Your task to perform on an android device: uninstall "Gmail" Image 0: 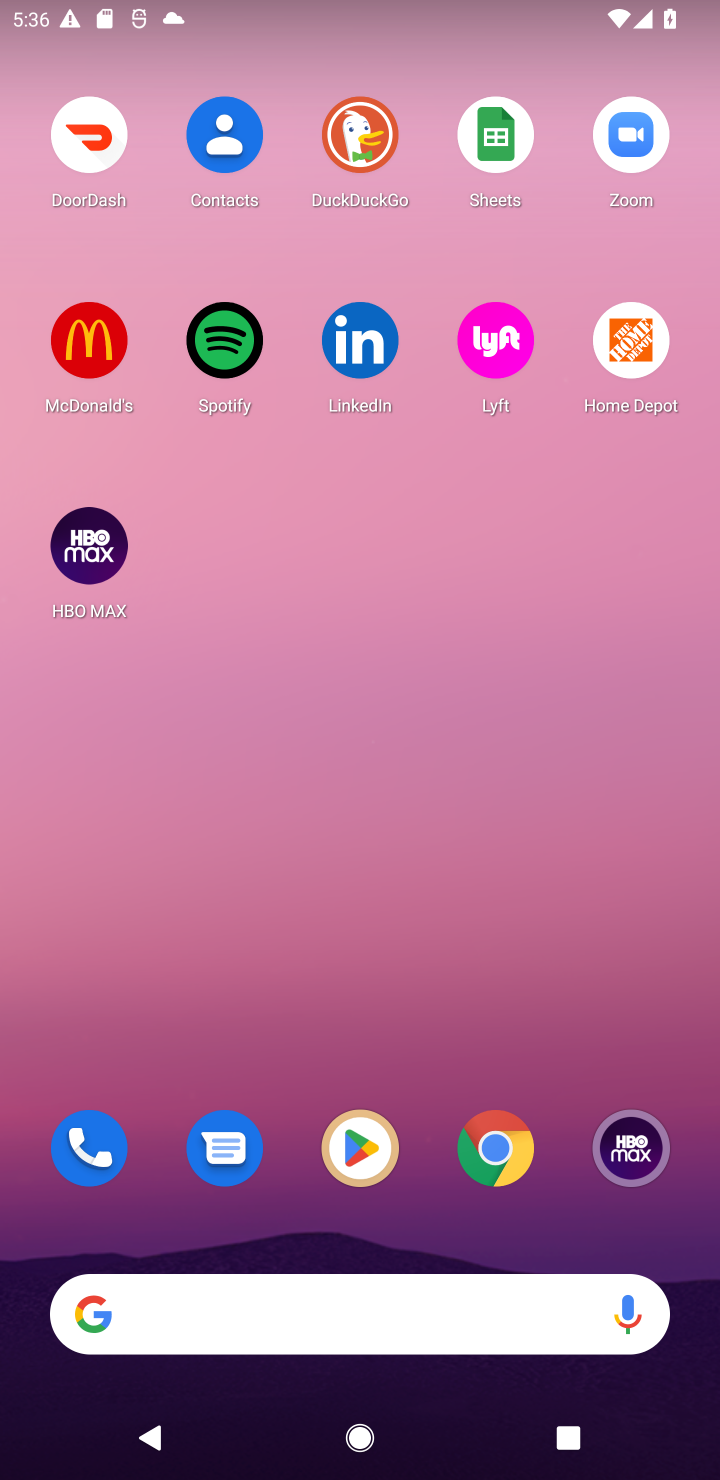
Step 0: drag from (485, 1101) to (466, 95)
Your task to perform on an android device: uninstall "Gmail" Image 1: 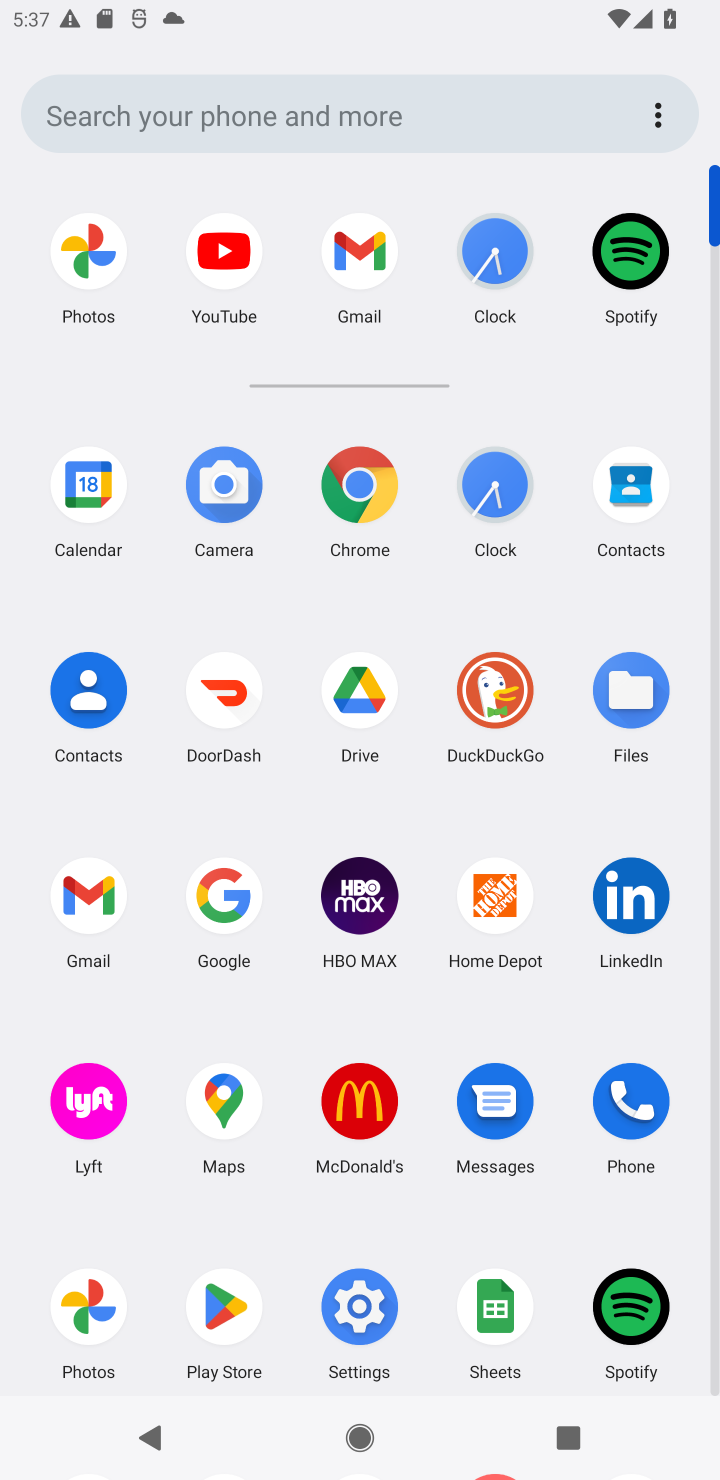
Step 1: click (232, 1282)
Your task to perform on an android device: uninstall "Gmail" Image 2: 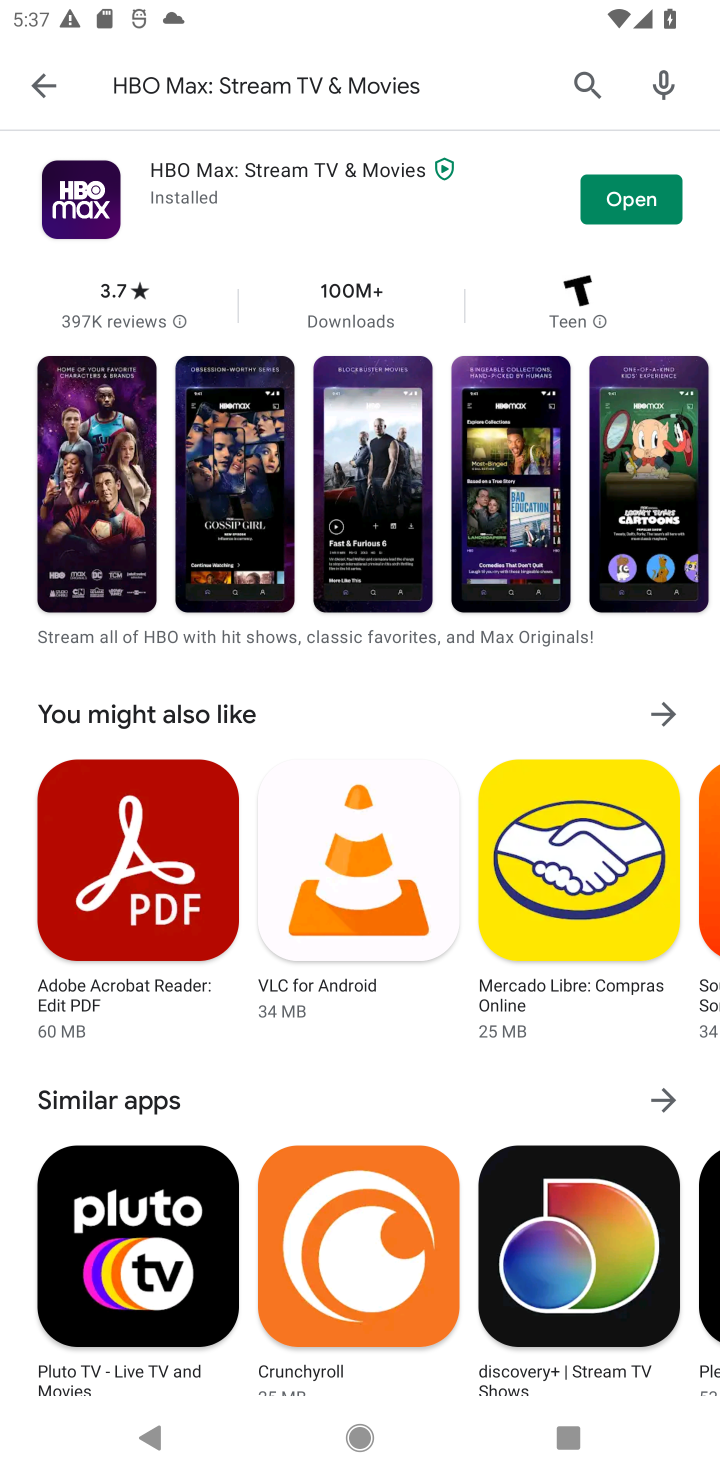
Step 2: press back button
Your task to perform on an android device: uninstall "Gmail" Image 3: 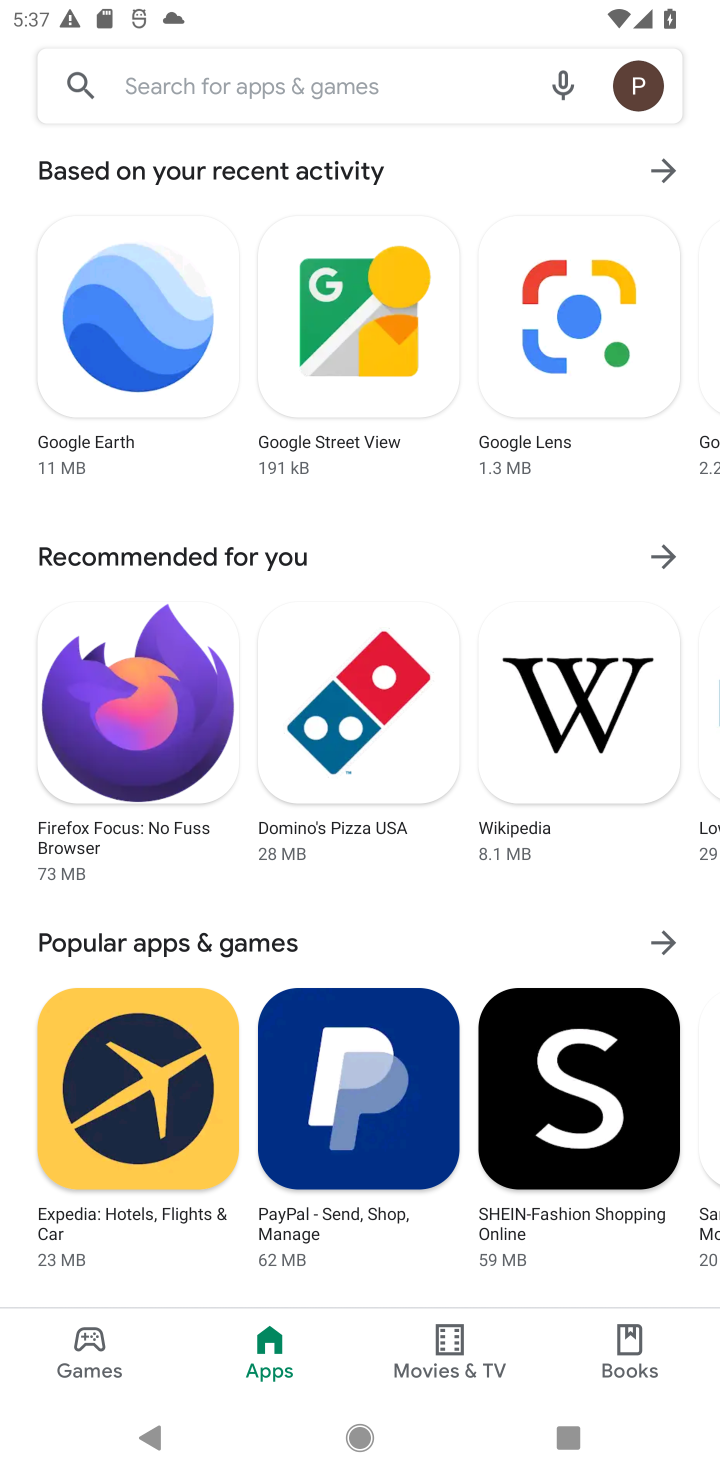
Step 3: click (236, 70)
Your task to perform on an android device: uninstall "Gmail" Image 4: 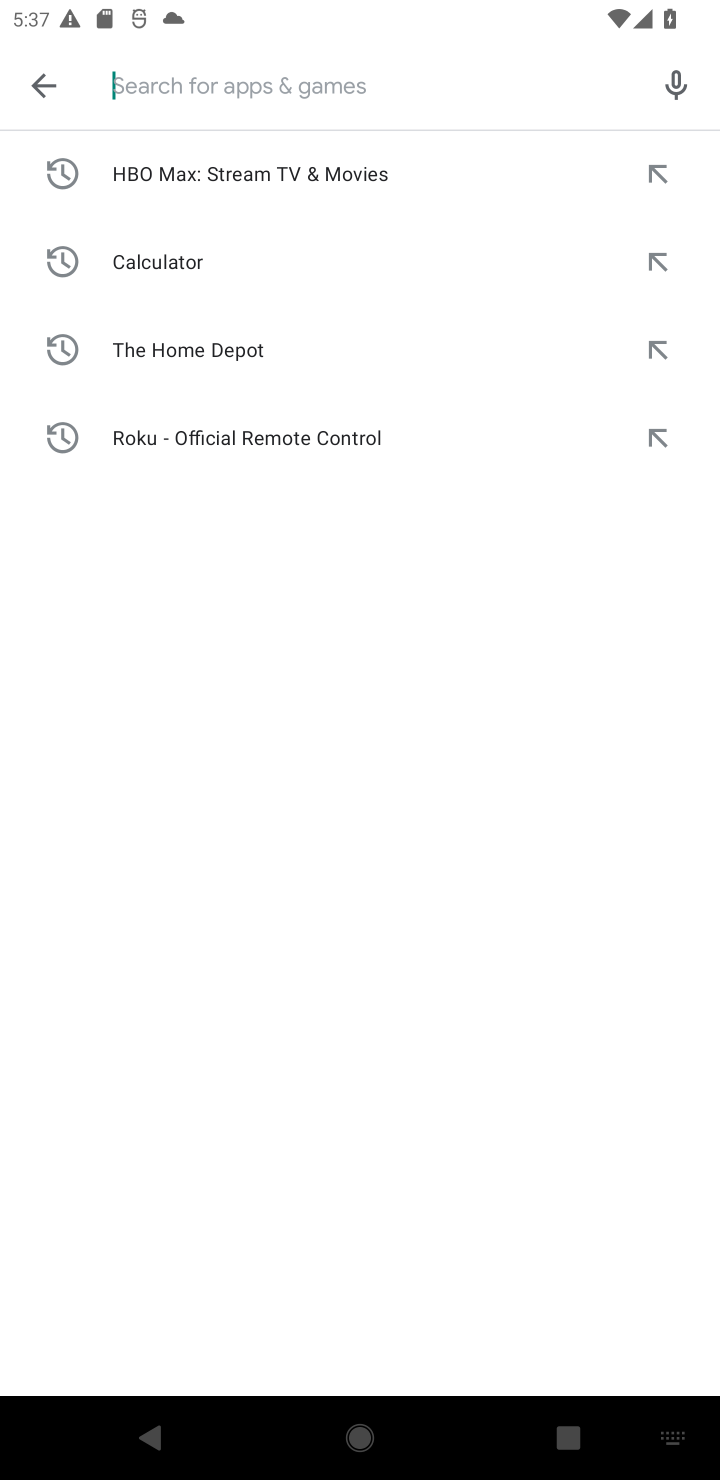
Step 4: type "Gmail"
Your task to perform on an android device: uninstall "Gmail" Image 5: 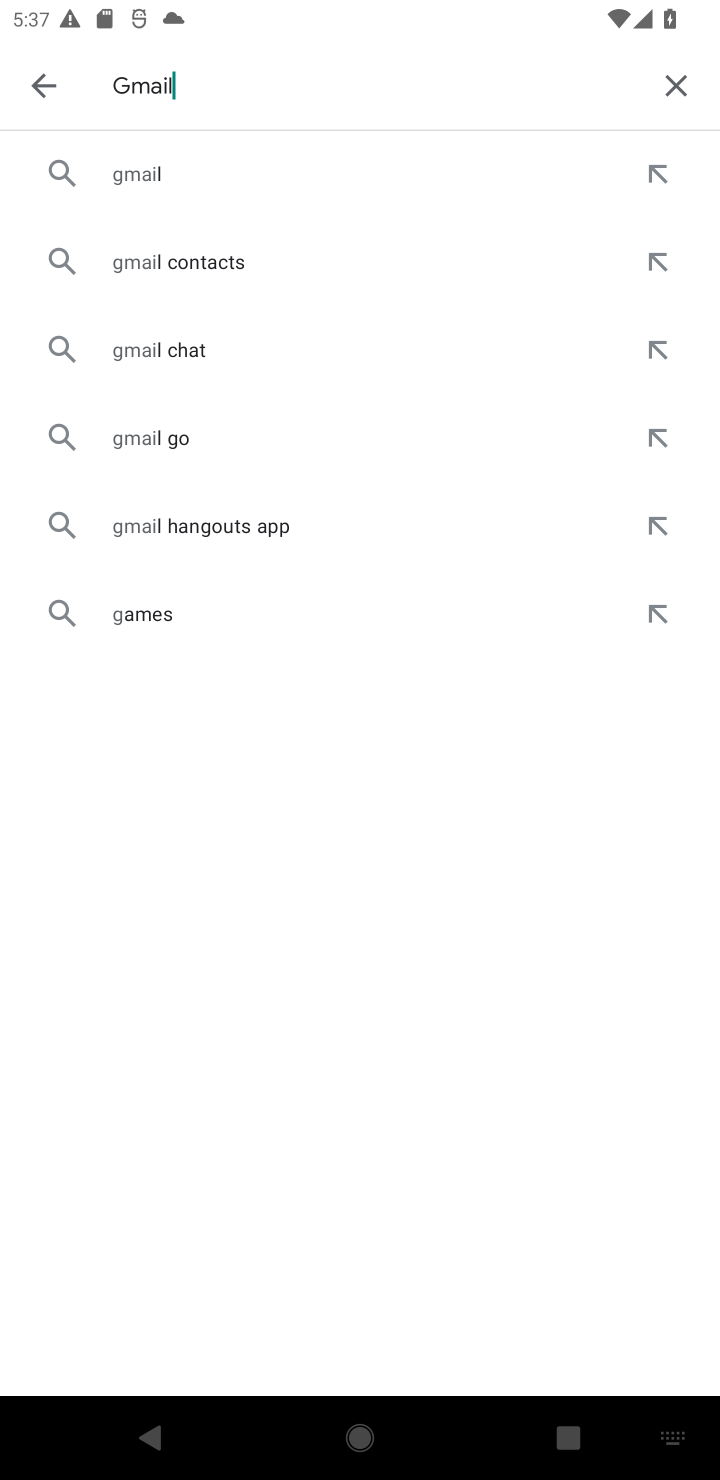
Step 5: press enter
Your task to perform on an android device: uninstall "Gmail" Image 6: 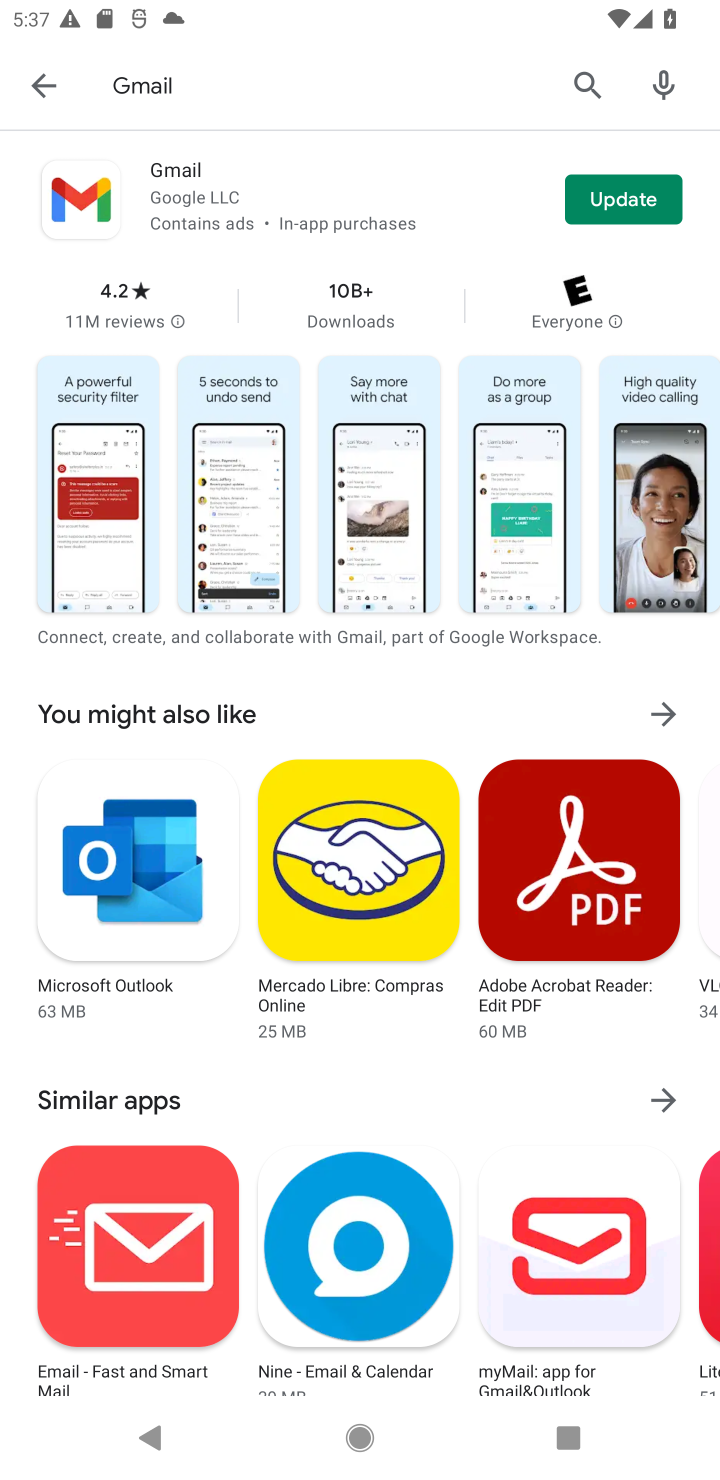
Step 6: task complete